Your task to perform on an android device: Open calendar and show me the third week of next month Image 0: 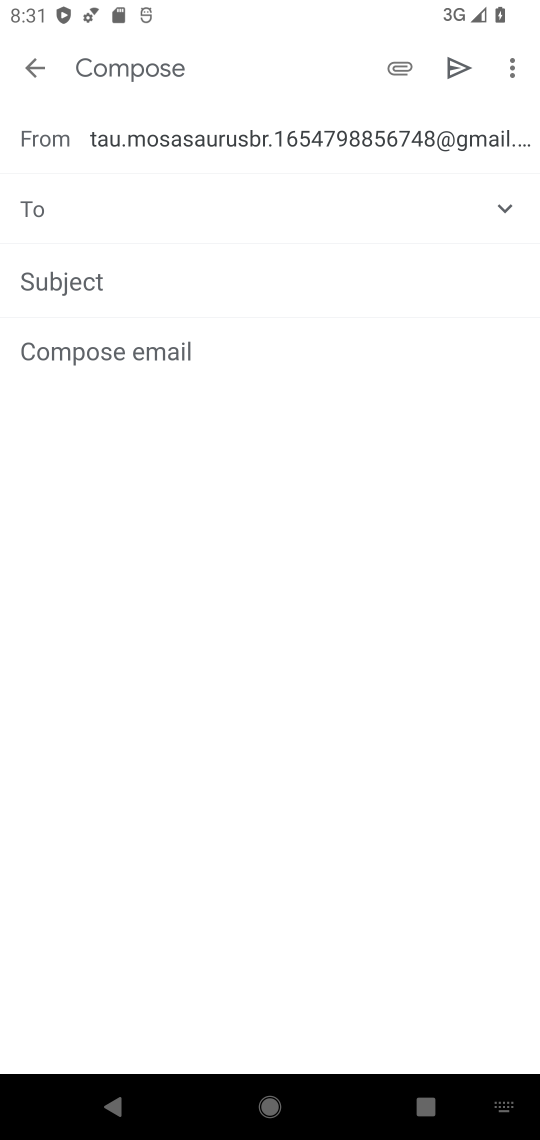
Step 0: press home button
Your task to perform on an android device: Open calendar and show me the third week of next month Image 1: 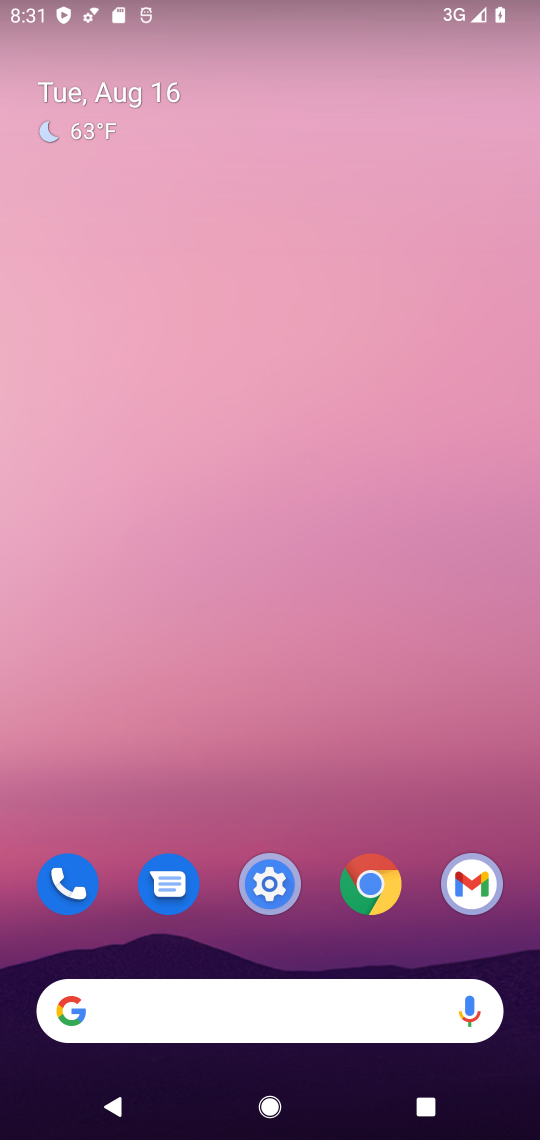
Step 1: drag from (420, 939) to (429, 267)
Your task to perform on an android device: Open calendar and show me the third week of next month Image 2: 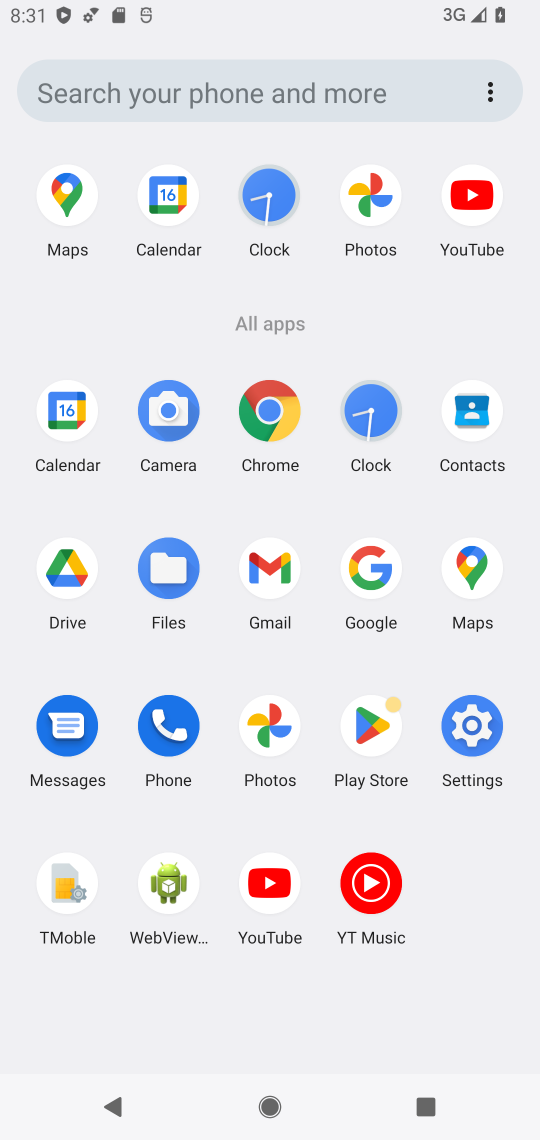
Step 2: click (63, 409)
Your task to perform on an android device: Open calendar and show me the third week of next month Image 3: 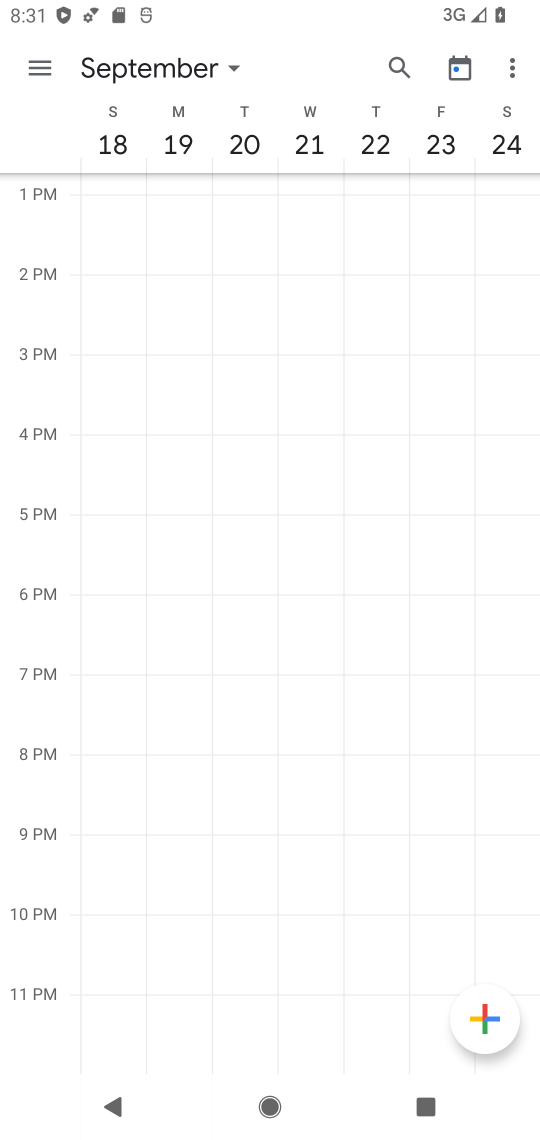
Step 3: click (219, 68)
Your task to perform on an android device: Open calendar and show me the third week of next month Image 4: 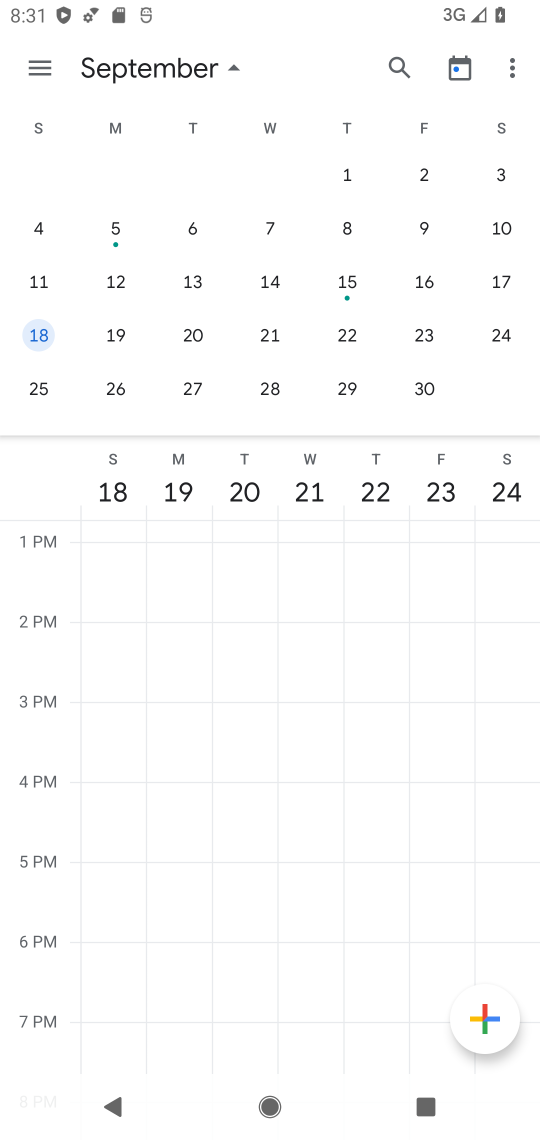
Step 4: task complete